Your task to perform on an android device: turn on priority inbox in the gmail app Image 0: 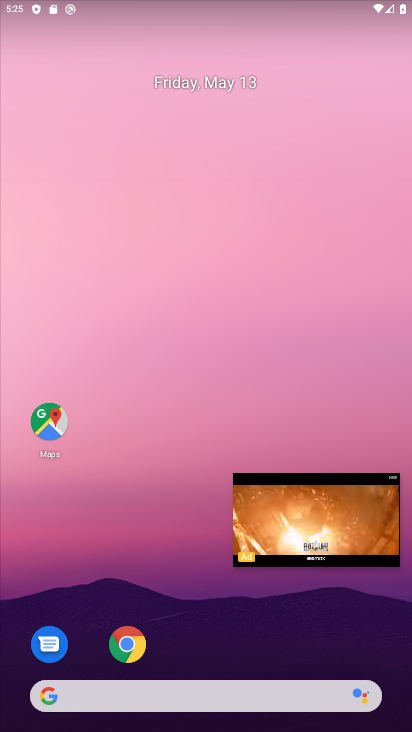
Step 0: click (336, 513)
Your task to perform on an android device: turn on priority inbox in the gmail app Image 1: 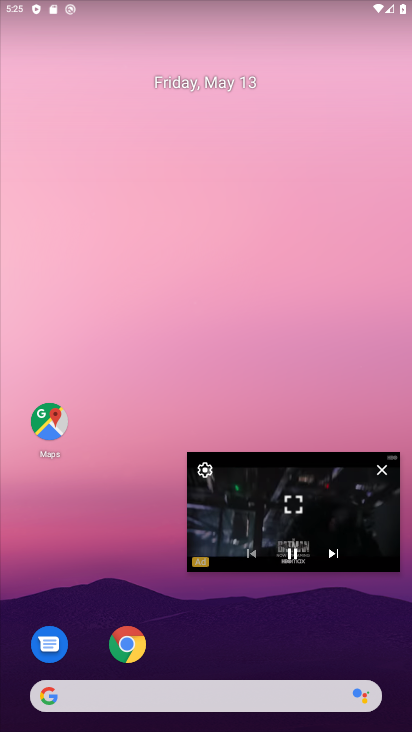
Step 1: click (384, 473)
Your task to perform on an android device: turn on priority inbox in the gmail app Image 2: 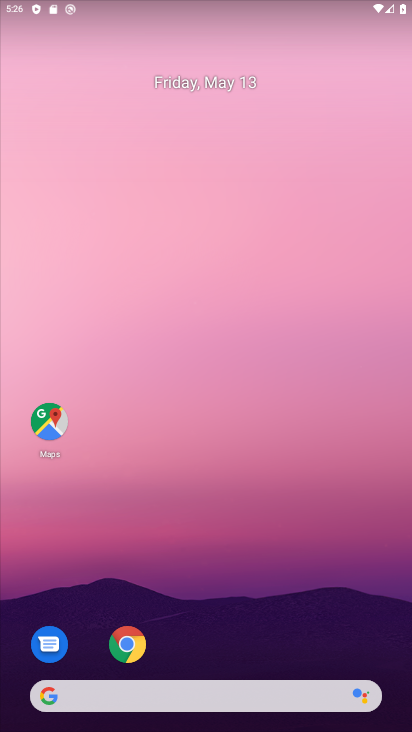
Step 2: drag from (230, 651) to (310, 119)
Your task to perform on an android device: turn on priority inbox in the gmail app Image 3: 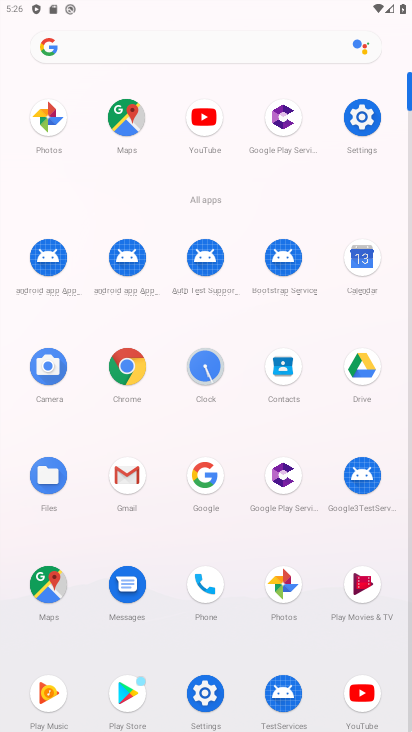
Step 3: click (121, 470)
Your task to perform on an android device: turn on priority inbox in the gmail app Image 4: 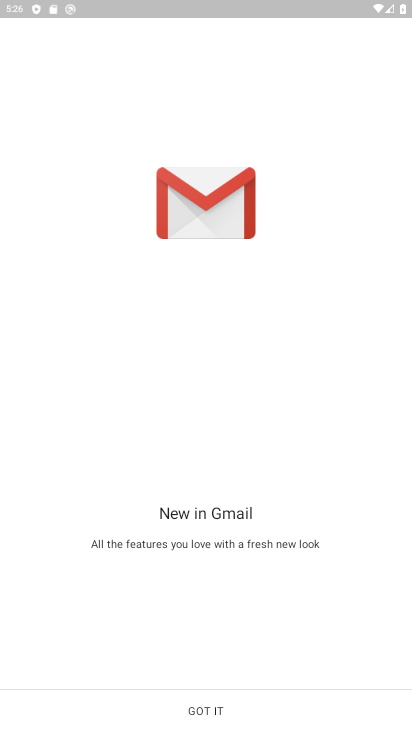
Step 4: click (202, 704)
Your task to perform on an android device: turn on priority inbox in the gmail app Image 5: 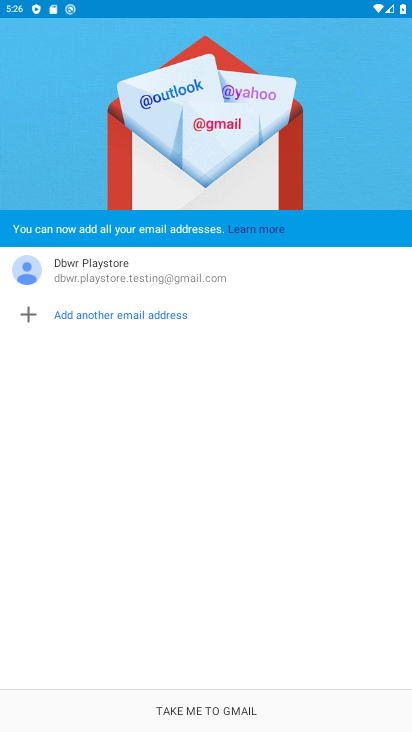
Step 5: click (207, 710)
Your task to perform on an android device: turn on priority inbox in the gmail app Image 6: 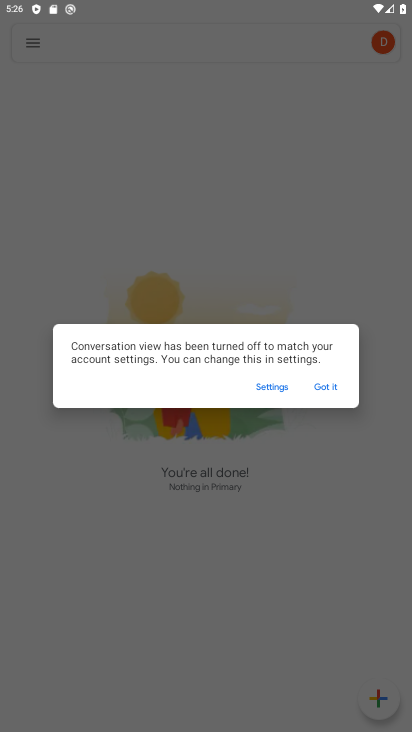
Step 6: click (323, 385)
Your task to perform on an android device: turn on priority inbox in the gmail app Image 7: 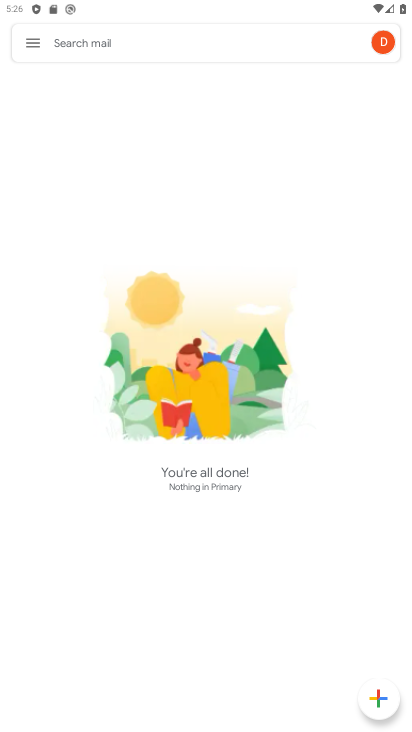
Step 7: click (34, 44)
Your task to perform on an android device: turn on priority inbox in the gmail app Image 8: 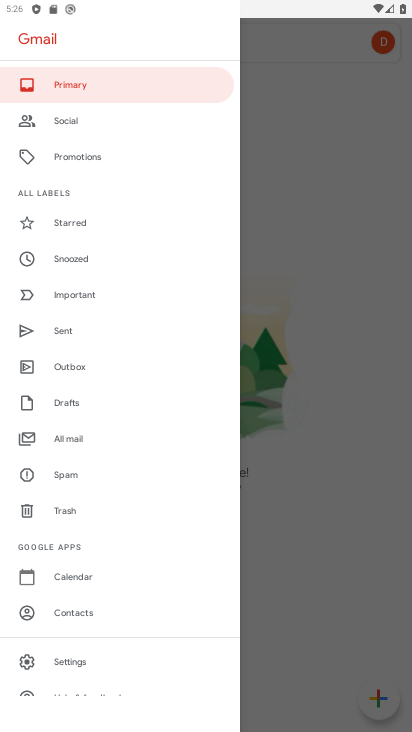
Step 8: drag from (84, 573) to (165, 170)
Your task to perform on an android device: turn on priority inbox in the gmail app Image 9: 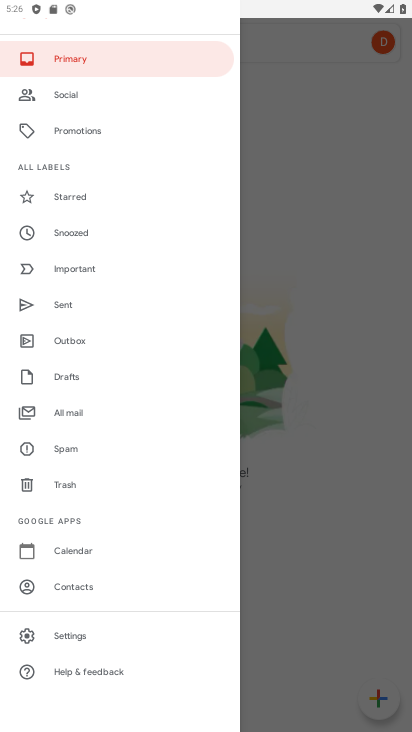
Step 9: click (70, 632)
Your task to perform on an android device: turn on priority inbox in the gmail app Image 10: 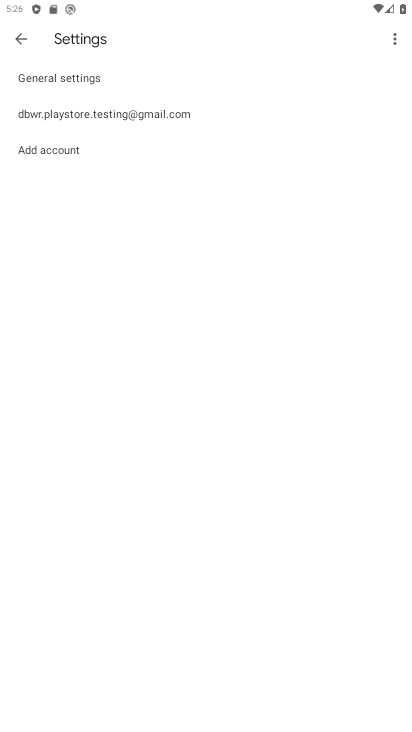
Step 10: click (65, 117)
Your task to perform on an android device: turn on priority inbox in the gmail app Image 11: 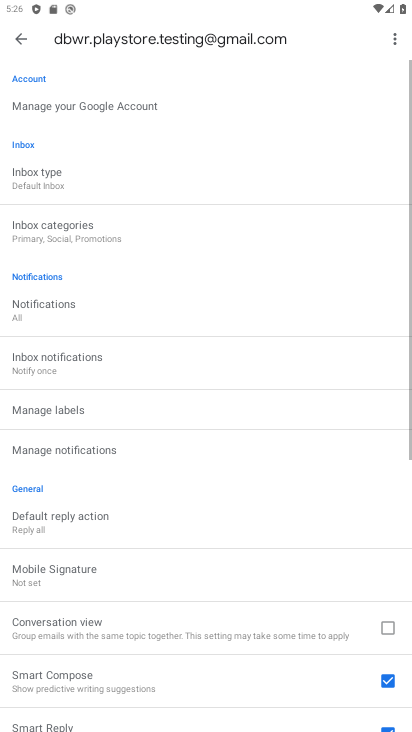
Step 11: click (61, 182)
Your task to perform on an android device: turn on priority inbox in the gmail app Image 12: 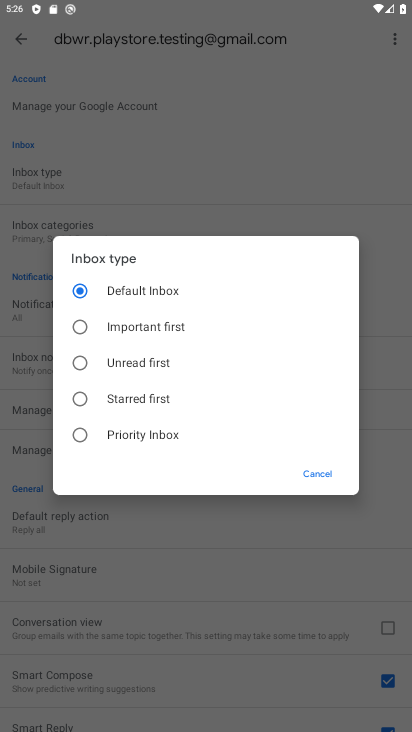
Step 12: click (121, 445)
Your task to perform on an android device: turn on priority inbox in the gmail app Image 13: 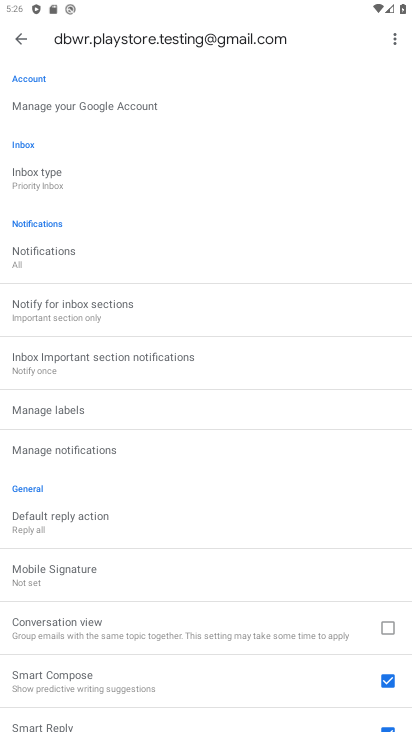
Step 13: task complete